Your task to perform on an android device: change the clock display to digital Image 0: 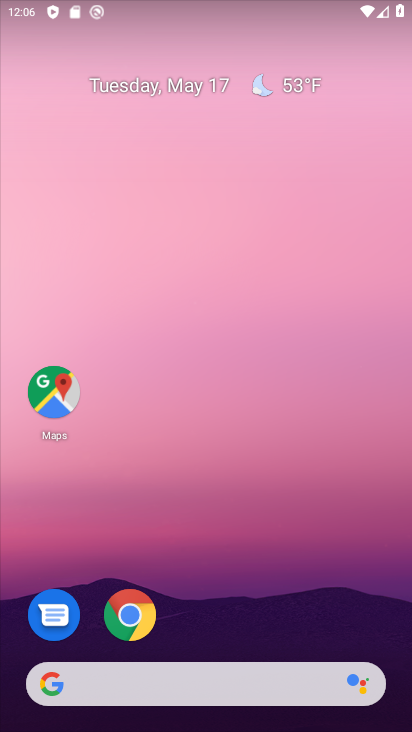
Step 0: drag from (267, 604) to (263, 259)
Your task to perform on an android device: change the clock display to digital Image 1: 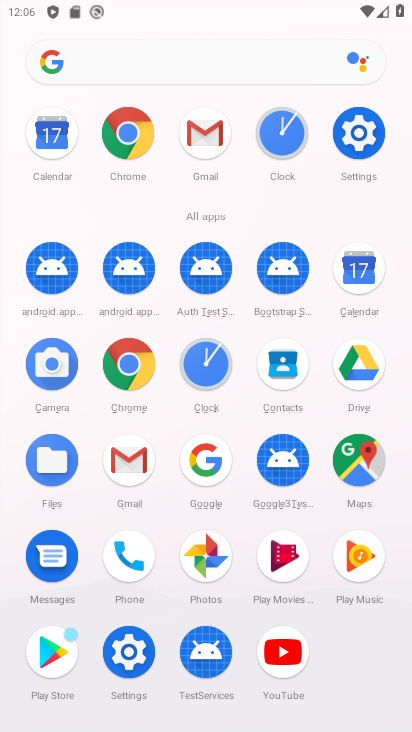
Step 1: click (274, 169)
Your task to perform on an android device: change the clock display to digital Image 2: 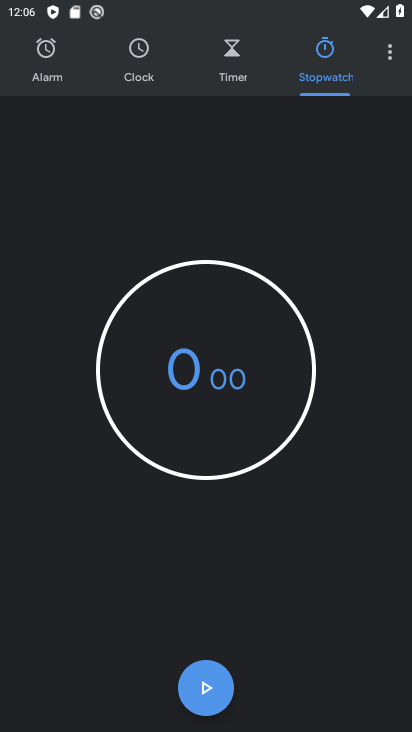
Step 2: click (386, 62)
Your task to perform on an android device: change the clock display to digital Image 3: 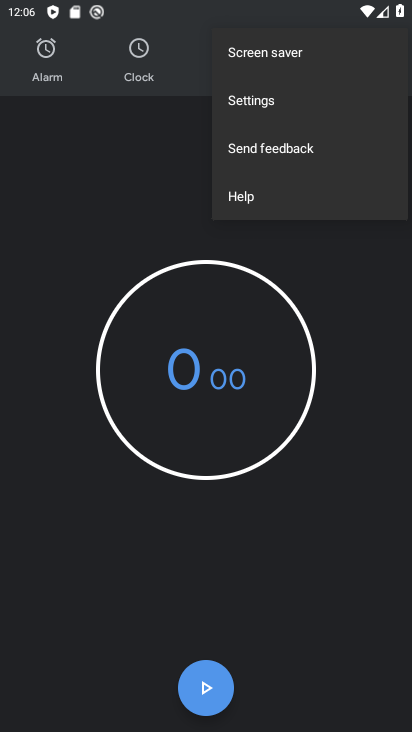
Step 3: click (270, 100)
Your task to perform on an android device: change the clock display to digital Image 4: 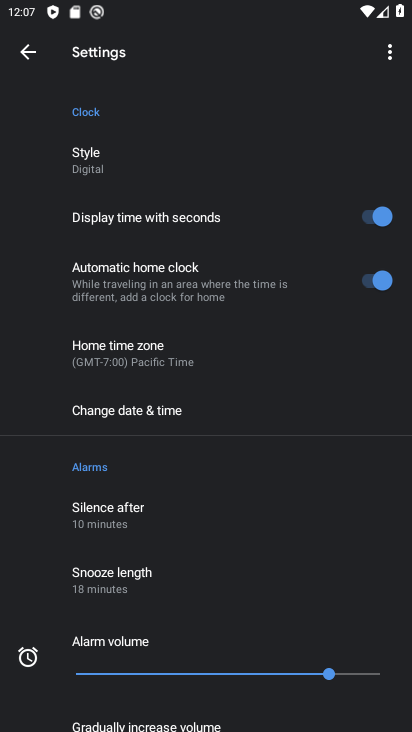
Step 4: click (153, 407)
Your task to perform on an android device: change the clock display to digital Image 5: 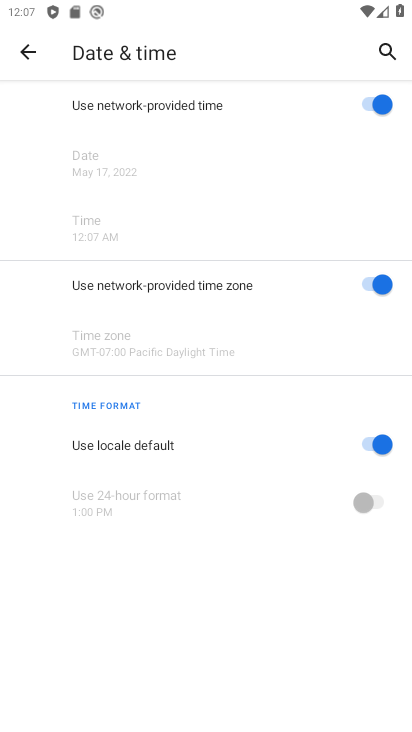
Step 5: click (34, 66)
Your task to perform on an android device: change the clock display to digital Image 6: 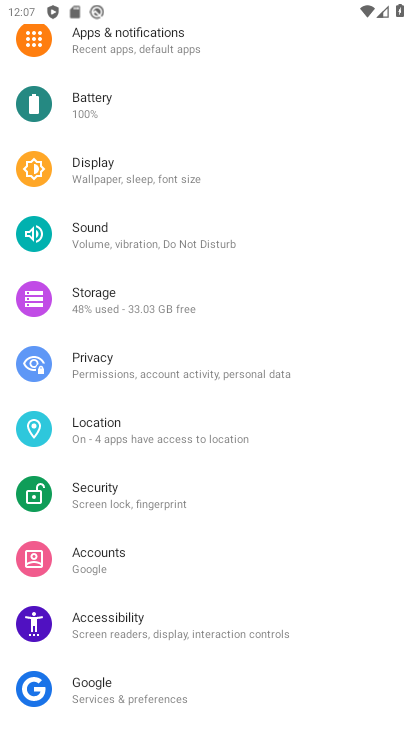
Step 6: drag from (198, 160) to (169, 676)
Your task to perform on an android device: change the clock display to digital Image 7: 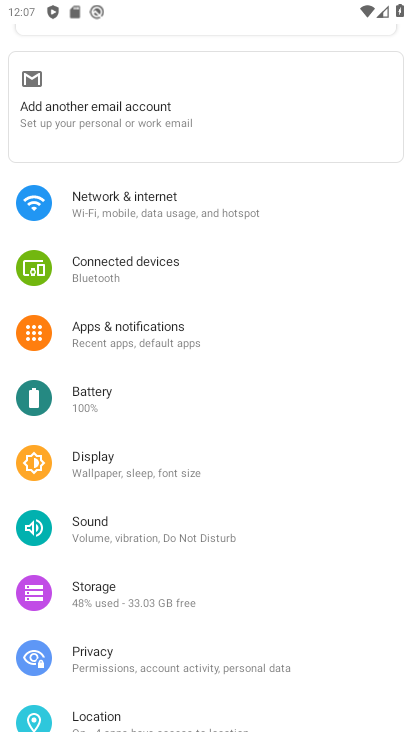
Step 7: press back button
Your task to perform on an android device: change the clock display to digital Image 8: 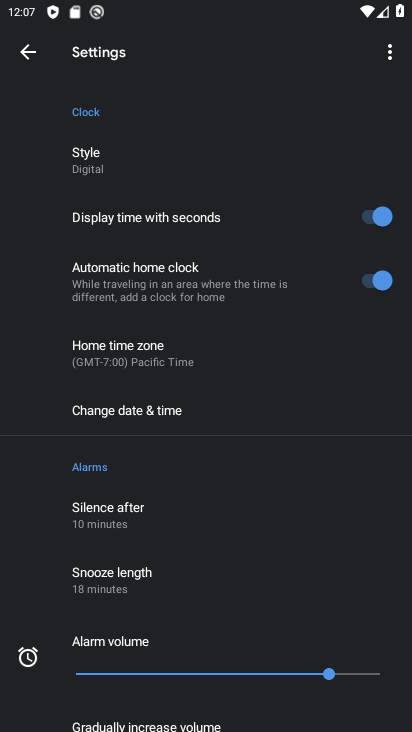
Step 8: click (222, 157)
Your task to perform on an android device: change the clock display to digital Image 9: 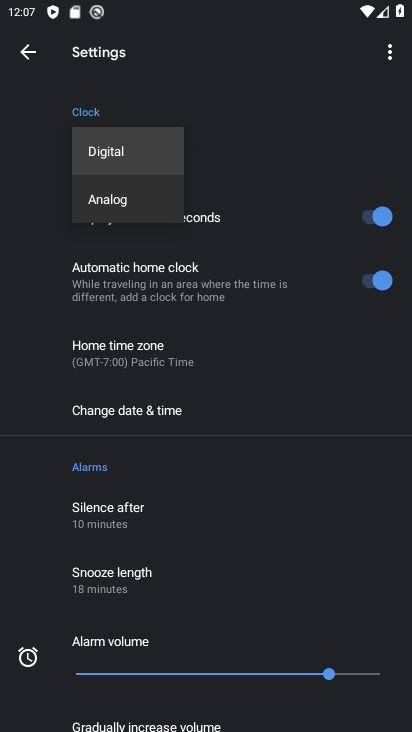
Step 9: task complete